Your task to perform on an android device: turn on translation in the chrome app Image 0: 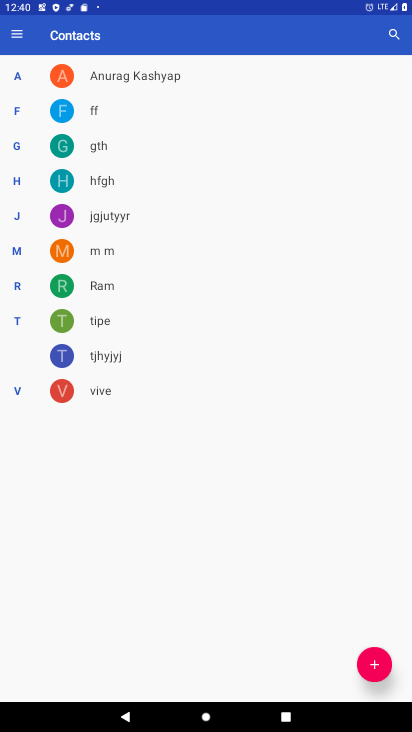
Step 0: press home button
Your task to perform on an android device: turn on translation in the chrome app Image 1: 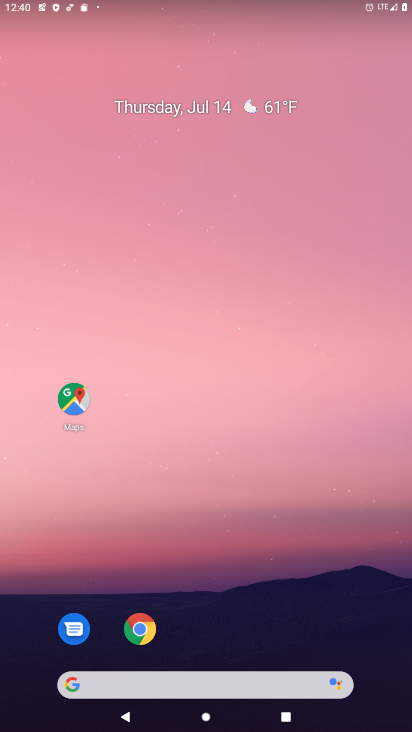
Step 1: click (139, 628)
Your task to perform on an android device: turn on translation in the chrome app Image 2: 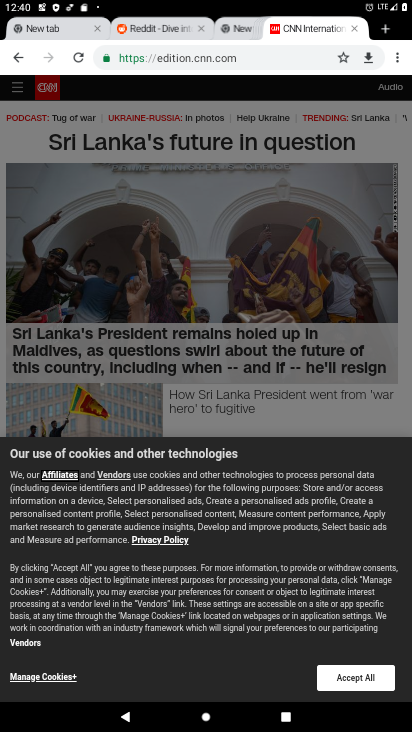
Step 2: click (399, 58)
Your task to perform on an android device: turn on translation in the chrome app Image 3: 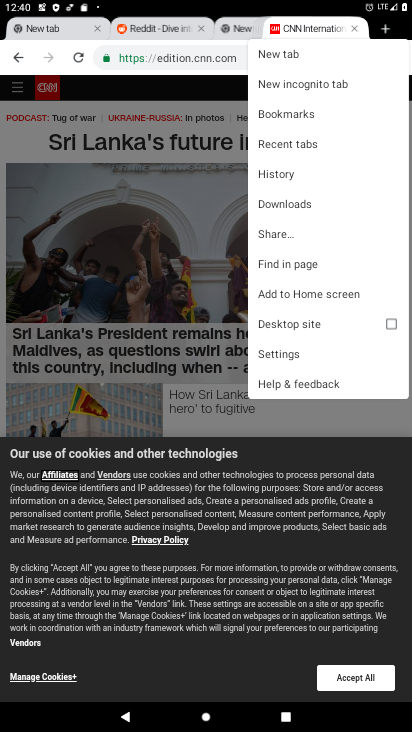
Step 3: click (274, 345)
Your task to perform on an android device: turn on translation in the chrome app Image 4: 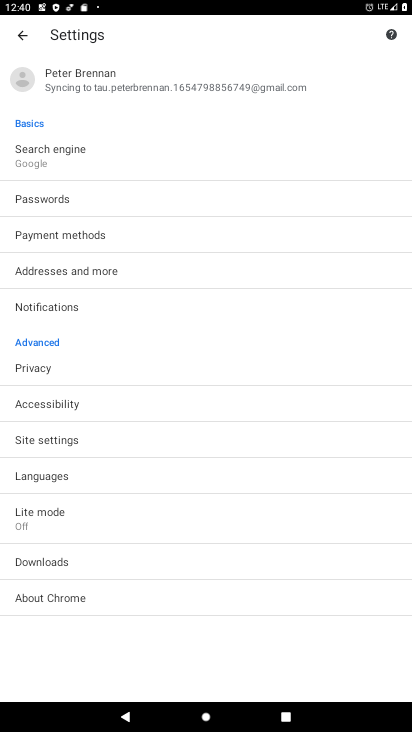
Step 4: click (49, 472)
Your task to perform on an android device: turn on translation in the chrome app Image 5: 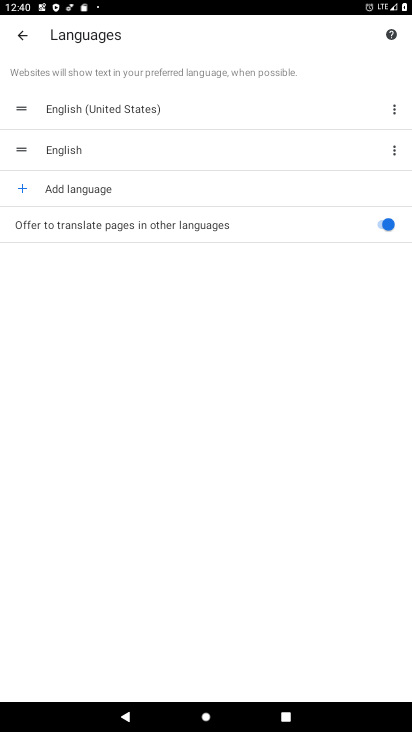
Step 5: task complete